Your task to perform on an android device: turn off smart reply in the gmail app Image 0: 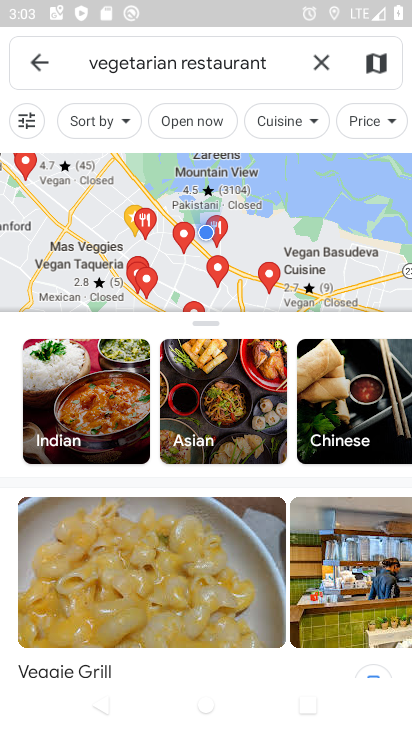
Step 0: press home button
Your task to perform on an android device: turn off smart reply in the gmail app Image 1: 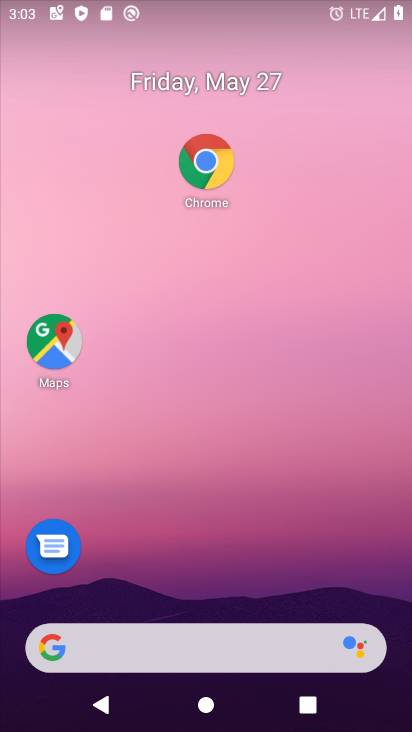
Step 1: drag from (151, 599) to (183, 175)
Your task to perform on an android device: turn off smart reply in the gmail app Image 2: 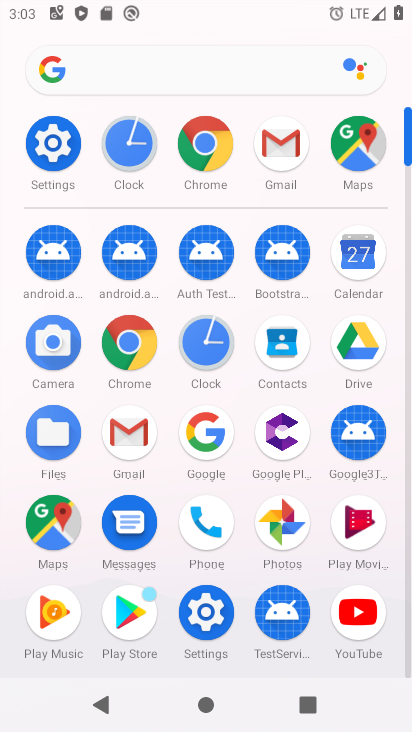
Step 2: click (268, 154)
Your task to perform on an android device: turn off smart reply in the gmail app Image 3: 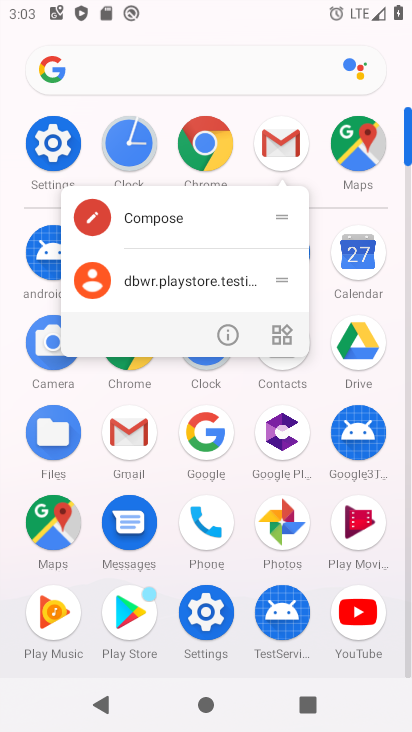
Step 3: click (286, 153)
Your task to perform on an android device: turn off smart reply in the gmail app Image 4: 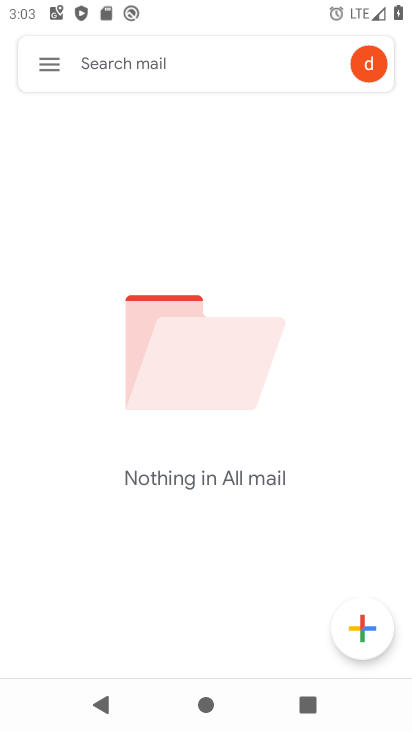
Step 4: click (44, 70)
Your task to perform on an android device: turn off smart reply in the gmail app Image 5: 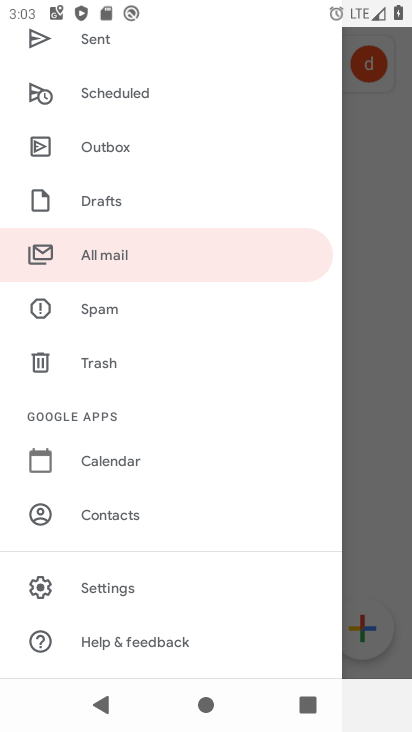
Step 5: click (116, 579)
Your task to perform on an android device: turn off smart reply in the gmail app Image 6: 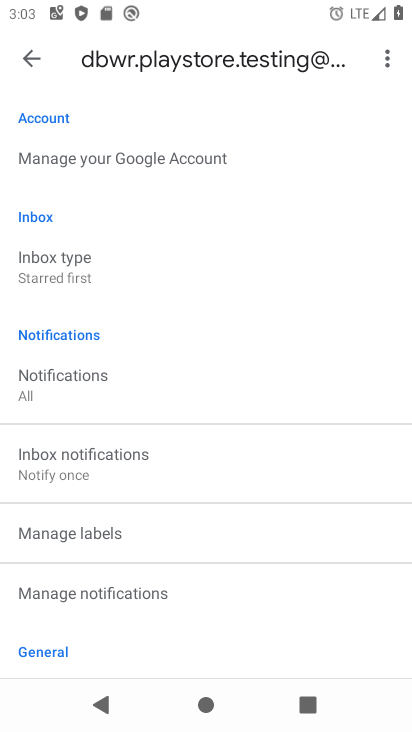
Step 6: drag from (145, 351) to (223, 121)
Your task to perform on an android device: turn off smart reply in the gmail app Image 7: 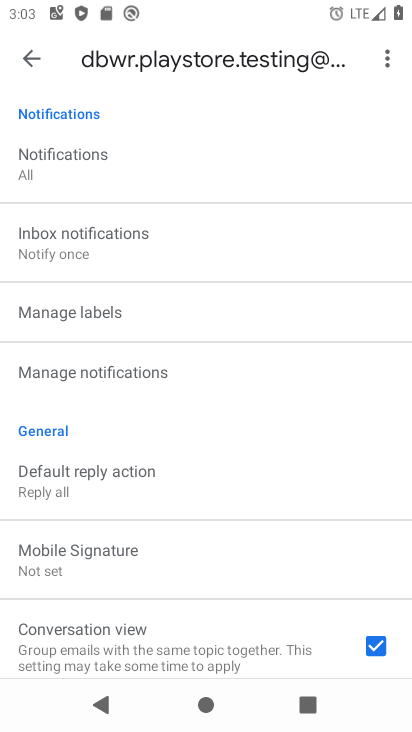
Step 7: drag from (84, 509) to (294, 64)
Your task to perform on an android device: turn off smart reply in the gmail app Image 8: 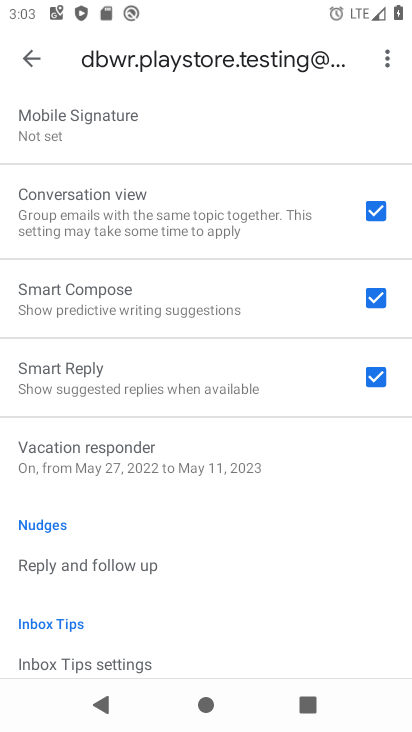
Step 8: click (379, 369)
Your task to perform on an android device: turn off smart reply in the gmail app Image 9: 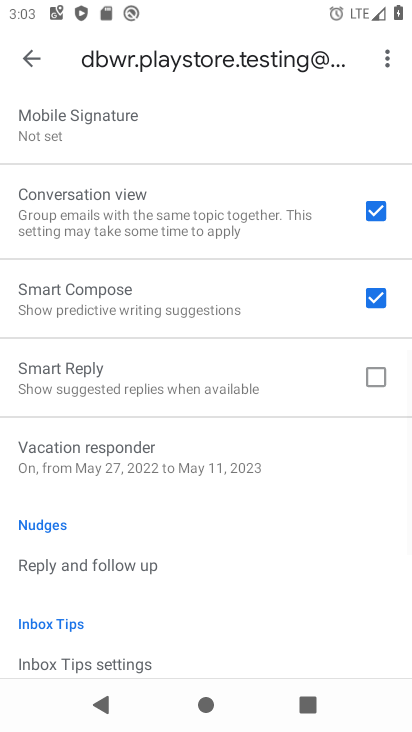
Step 9: task complete